Your task to perform on an android device: toggle airplane mode Image 0: 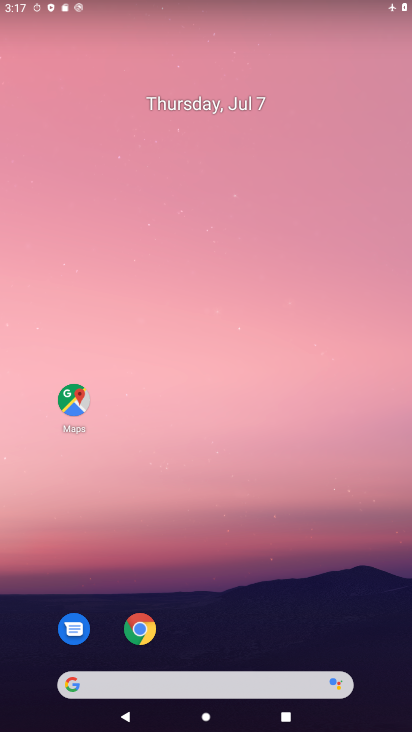
Step 0: drag from (210, 576) to (236, 222)
Your task to perform on an android device: toggle airplane mode Image 1: 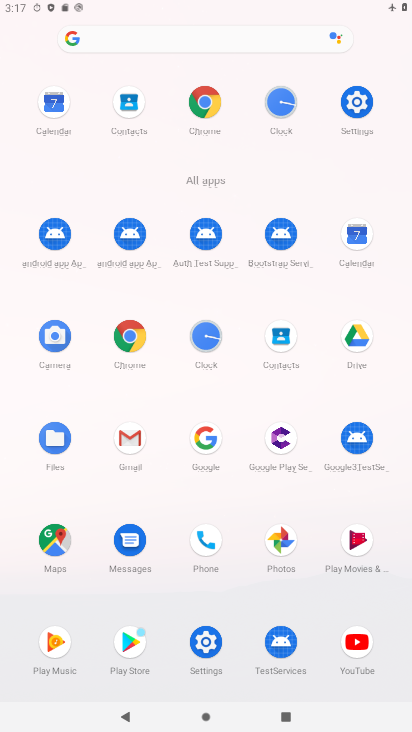
Step 1: click (346, 104)
Your task to perform on an android device: toggle airplane mode Image 2: 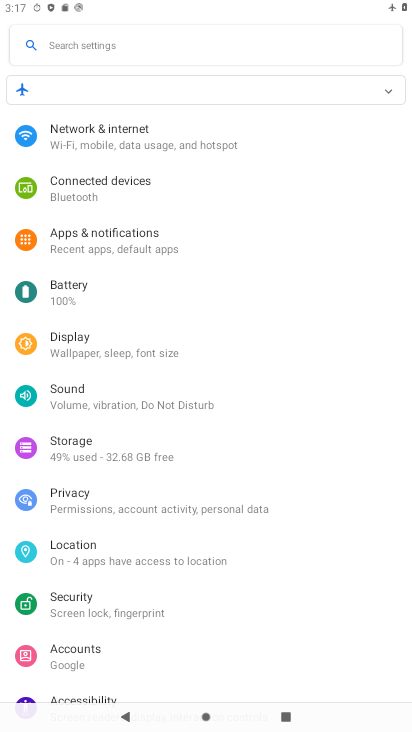
Step 2: click (92, 142)
Your task to perform on an android device: toggle airplane mode Image 3: 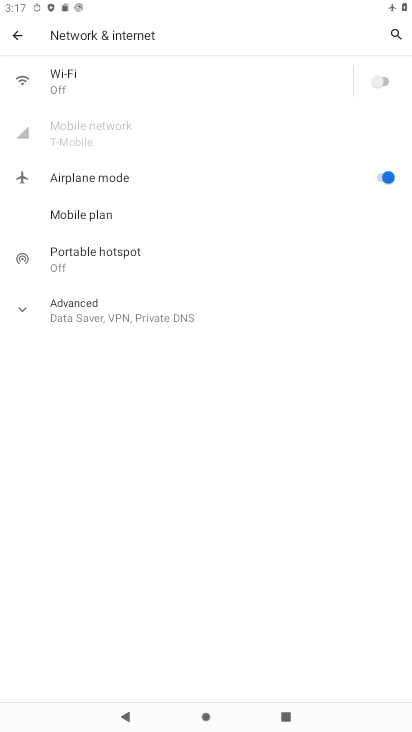
Step 3: click (385, 177)
Your task to perform on an android device: toggle airplane mode Image 4: 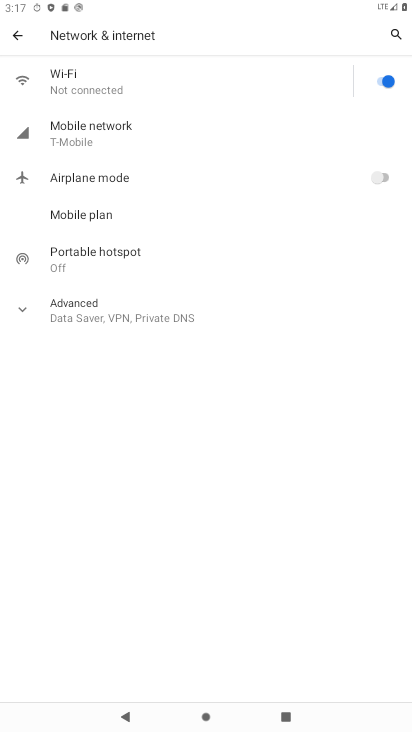
Step 4: task complete